Your task to perform on an android device: turn off sleep mode Image 0: 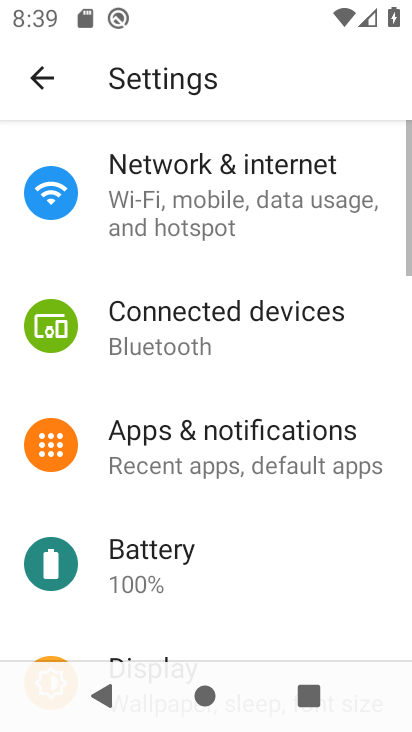
Step 0: press home button
Your task to perform on an android device: turn off sleep mode Image 1: 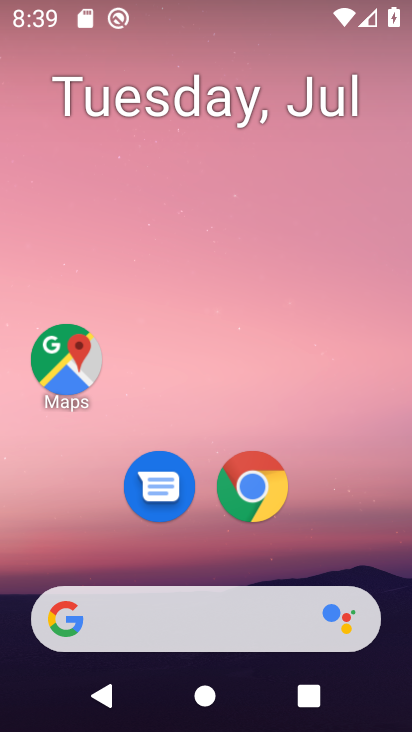
Step 1: drag from (194, 622) to (189, 245)
Your task to perform on an android device: turn off sleep mode Image 2: 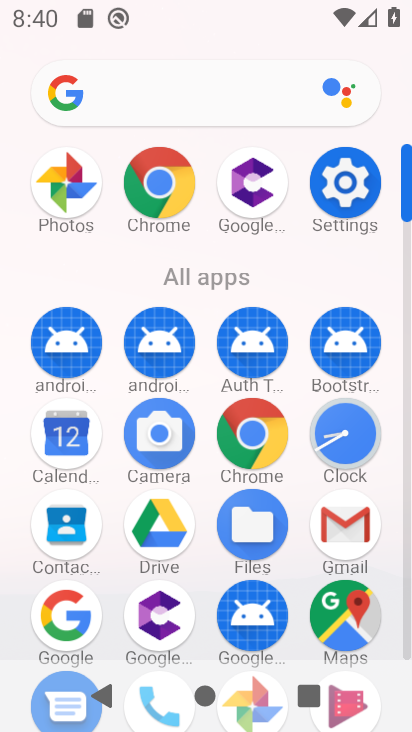
Step 2: click (349, 207)
Your task to perform on an android device: turn off sleep mode Image 3: 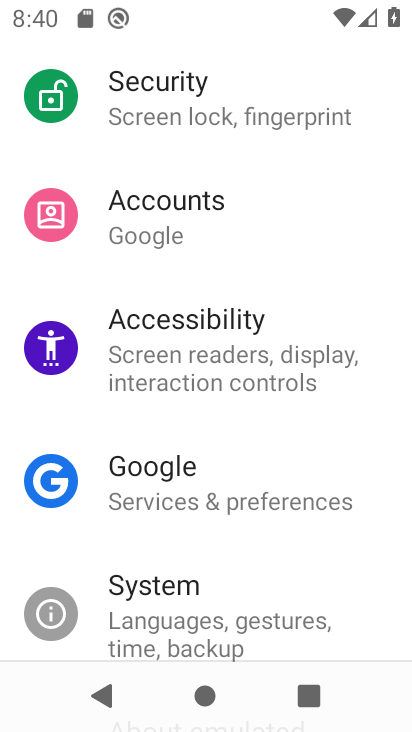
Step 3: drag from (247, 269) to (123, 727)
Your task to perform on an android device: turn off sleep mode Image 4: 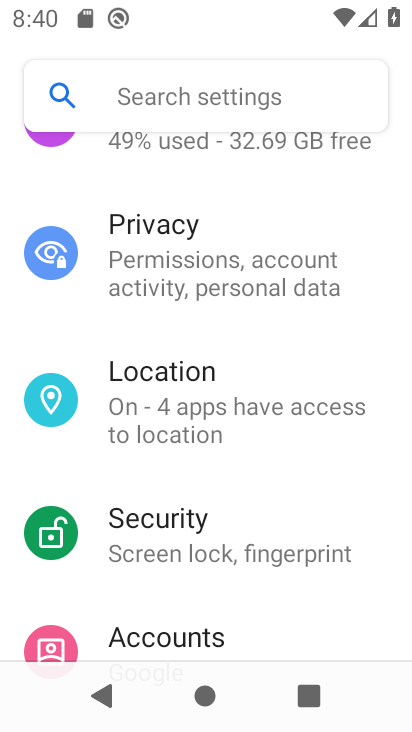
Step 4: drag from (172, 296) to (161, 729)
Your task to perform on an android device: turn off sleep mode Image 5: 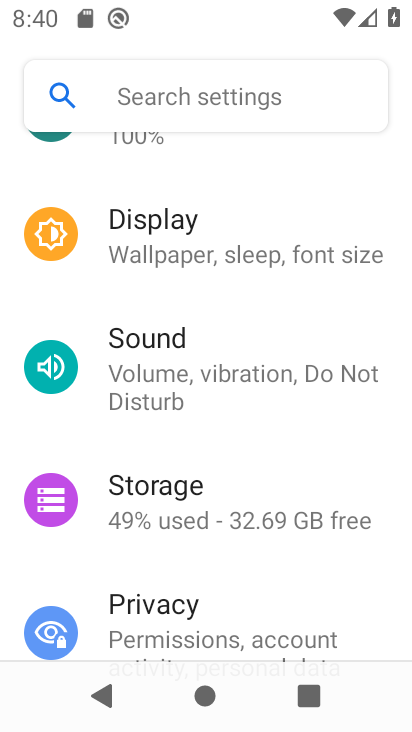
Step 5: click (226, 258)
Your task to perform on an android device: turn off sleep mode Image 6: 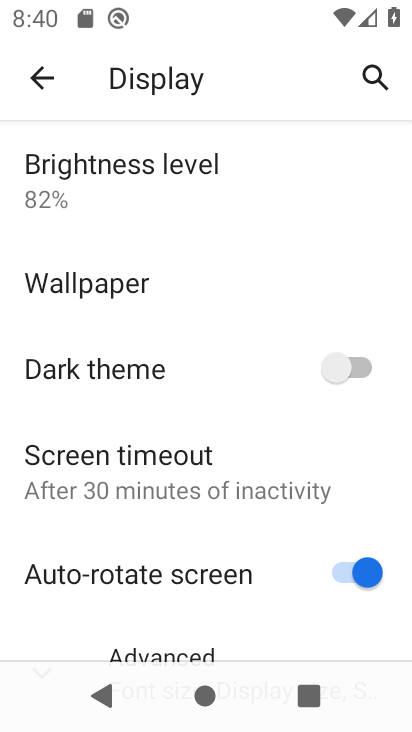
Step 6: drag from (160, 560) to (209, 230)
Your task to perform on an android device: turn off sleep mode Image 7: 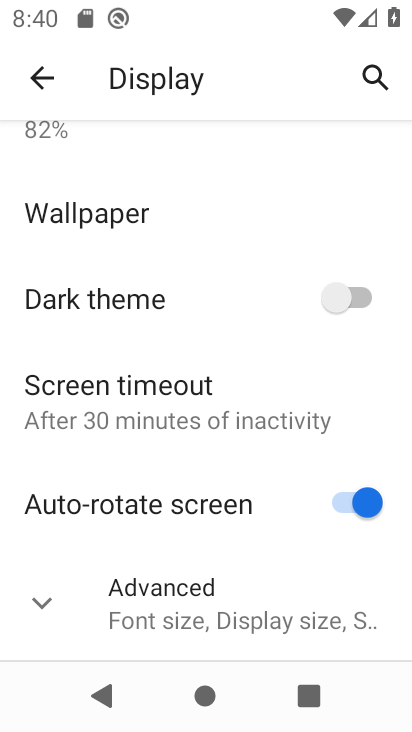
Step 7: click (174, 606)
Your task to perform on an android device: turn off sleep mode Image 8: 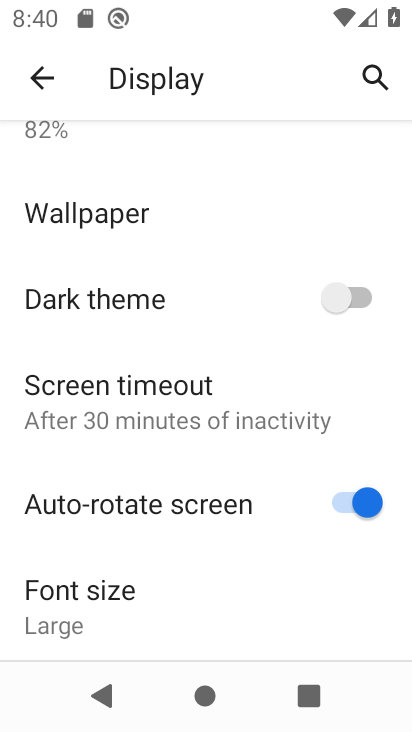
Step 8: task complete